Your task to perform on an android device: install app "Mercado Libre" Image 0: 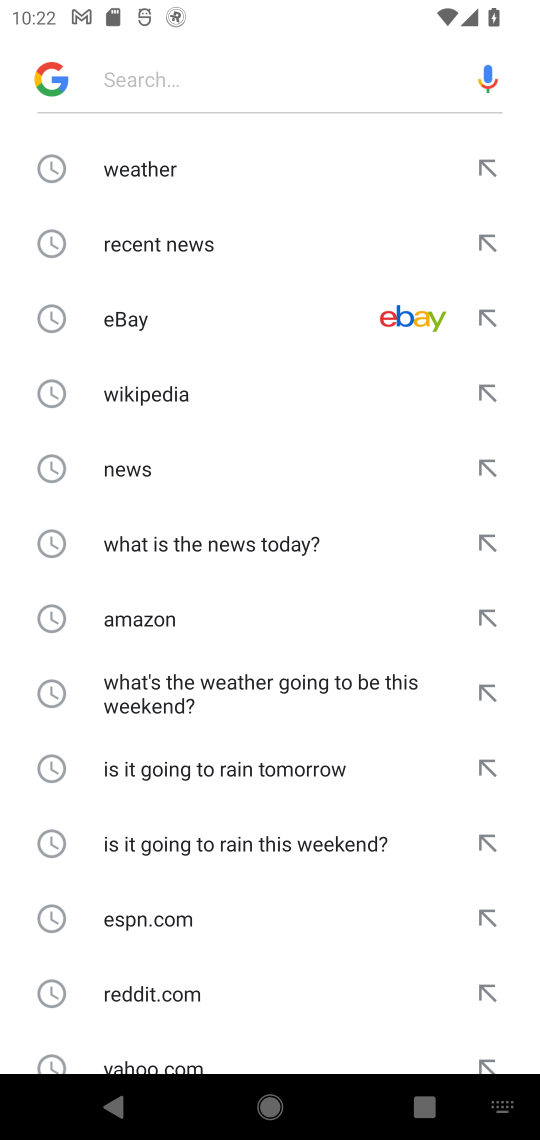
Step 0: press home button
Your task to perform on an android device: install app "Mercado Libre" Image 1: 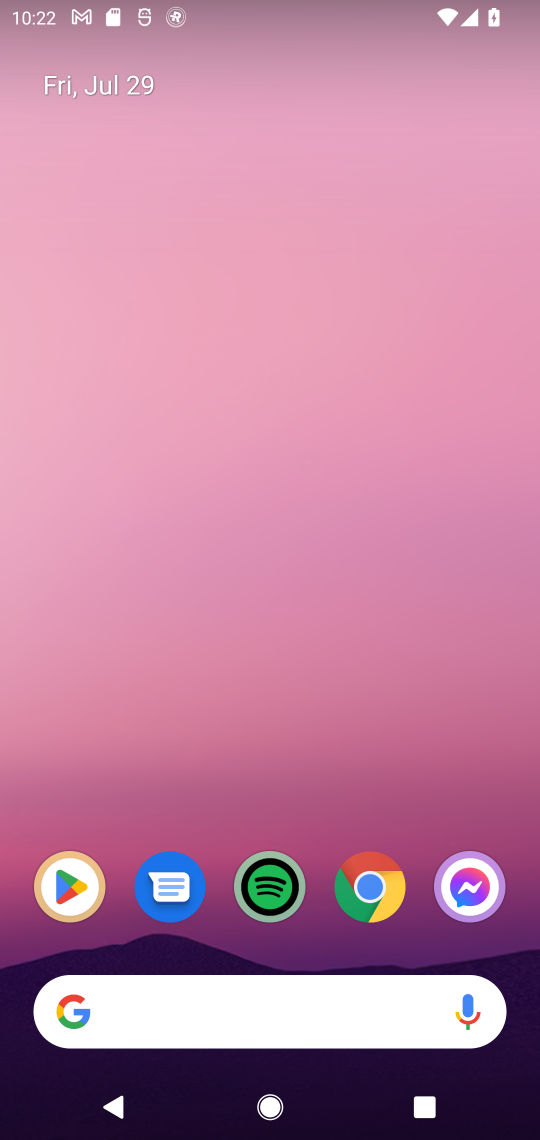
Step 1: click (83, 891)
Your task to perform on an android device: install app "Mercado Libre" Image 2: 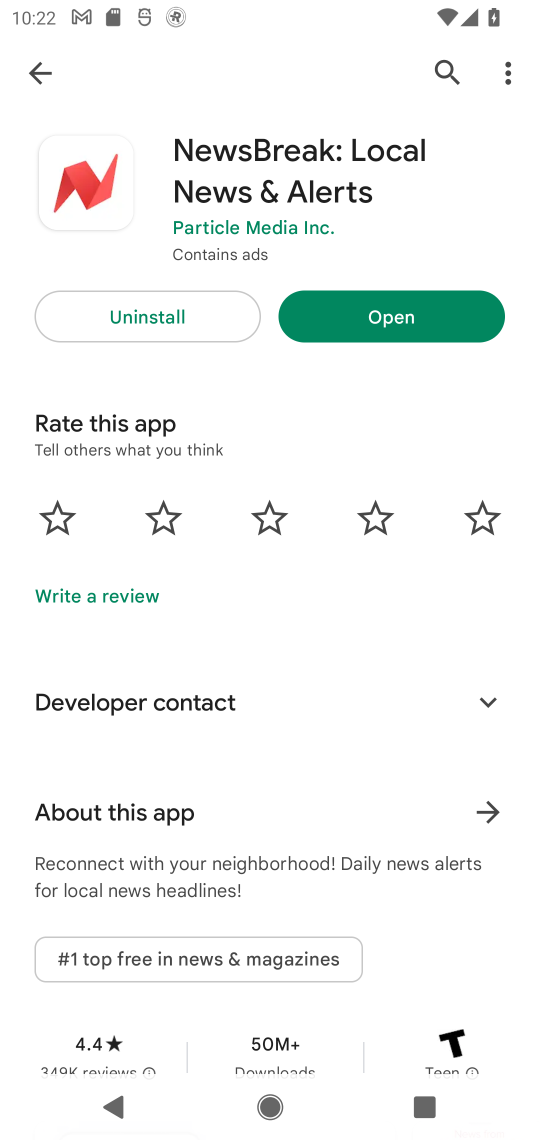
Step 2: click (454, 63)
Your task to perform on an android device: install app "Mercado Libre" Image 3: 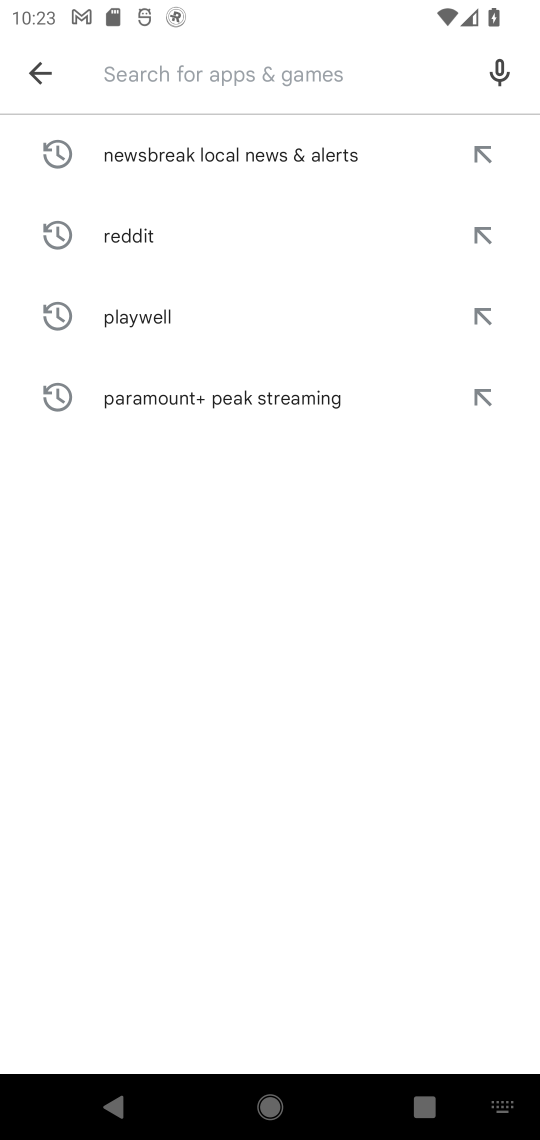
Step 3: type "mercado libre"
Your task to perform on an android device: install app "Mercado Libre" Image 4: 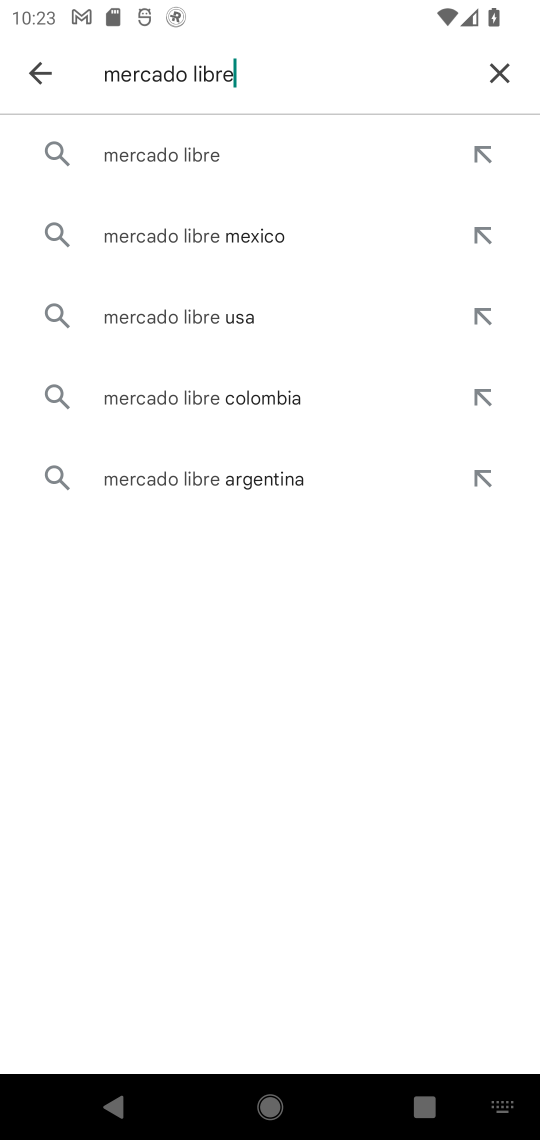
Step 4: click (400, 142)
Your task to perform on an android device: install app "Mercado Libre" Image 5: 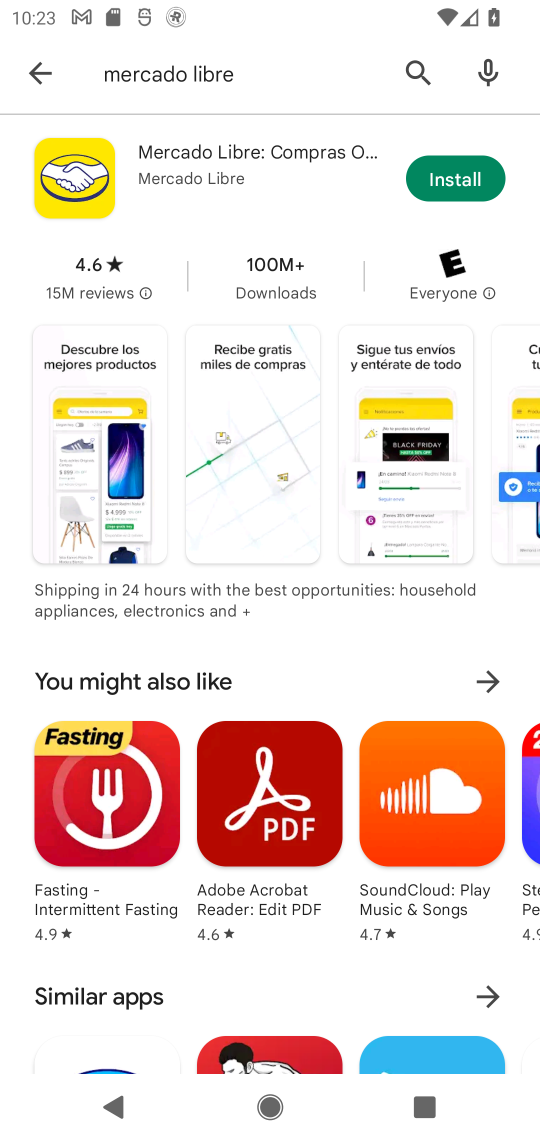
Step 5: click (238, 119)
Your task to perform on an android device: install app "Mercado Libre" Image 6: 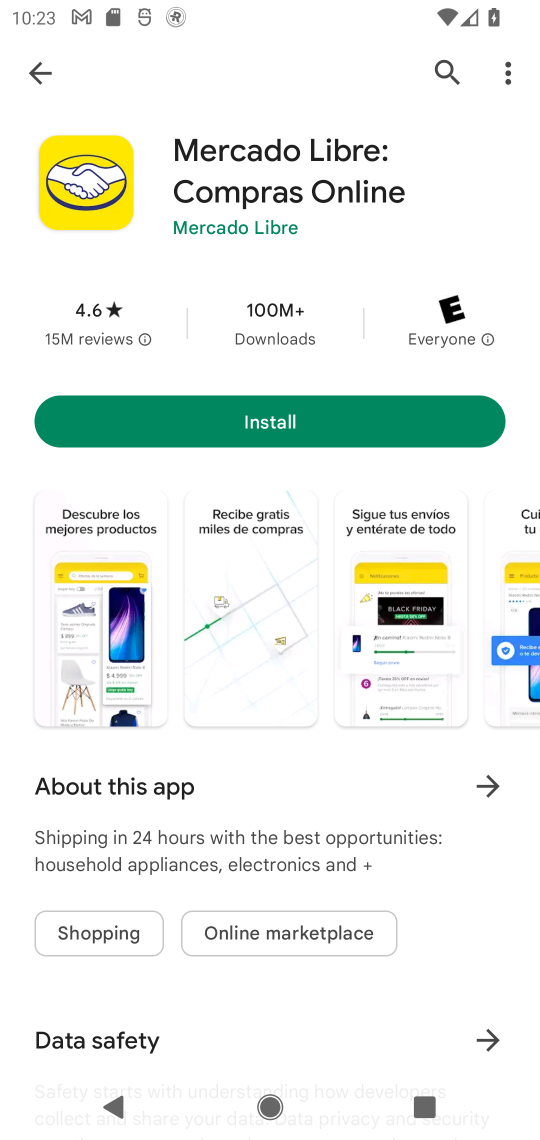
Step 6: click (309, 421)
Your task to perform on an android device: install app "Mercado Libre" Image 7: 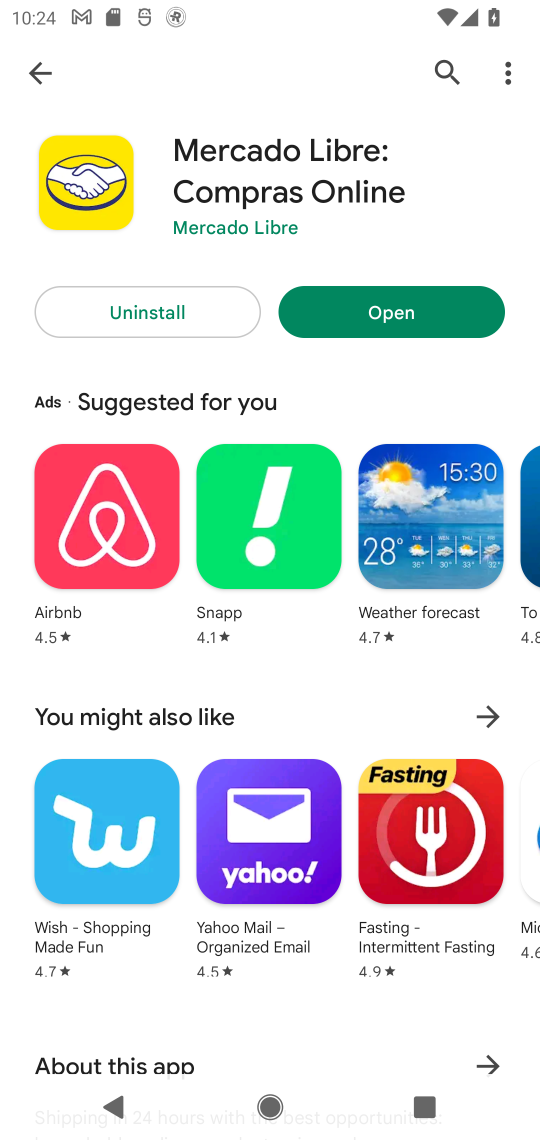
Step 7: press home button
Your task to perform on an android device: install app "Mercado Libre" Image 8: 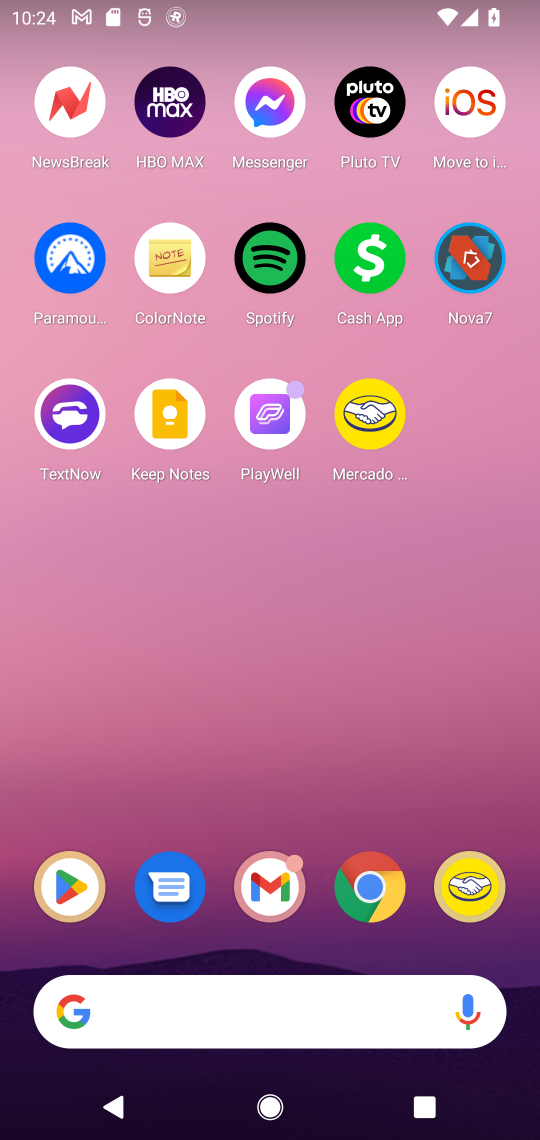
Step 8: click (64, 907)
Your task to perform on an android device: install app "Mercado Libre" Image 9: 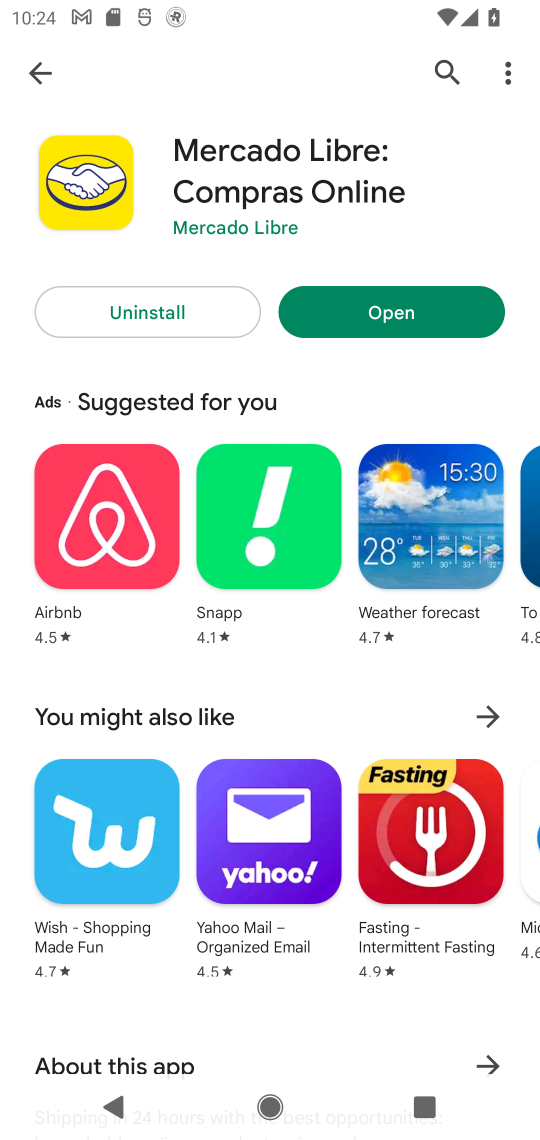
Step 9: task complete